Your task to perform on an android device: empty trash in google photos Image 0: 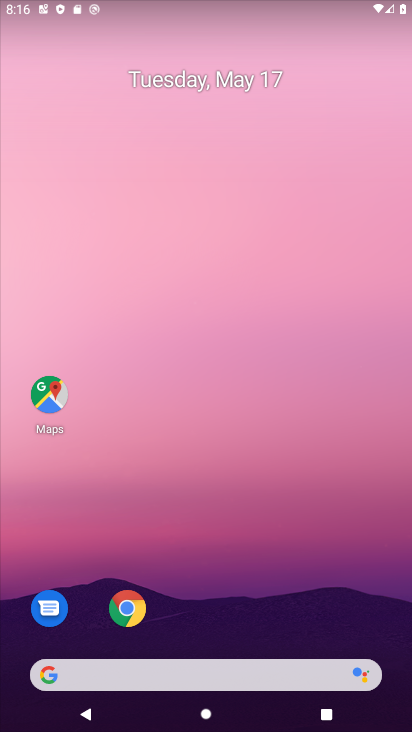
Step 0: drag from (371, 600) to (364, 151)
Your task to perform on an android device: empty trash in google photos Image 1: 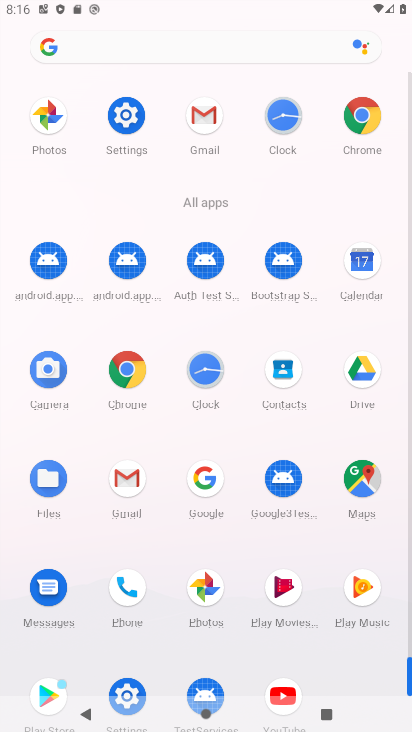
Step 1: click (208, 591)
Your task to perform on an android device: empty trash in google photos Image 2: 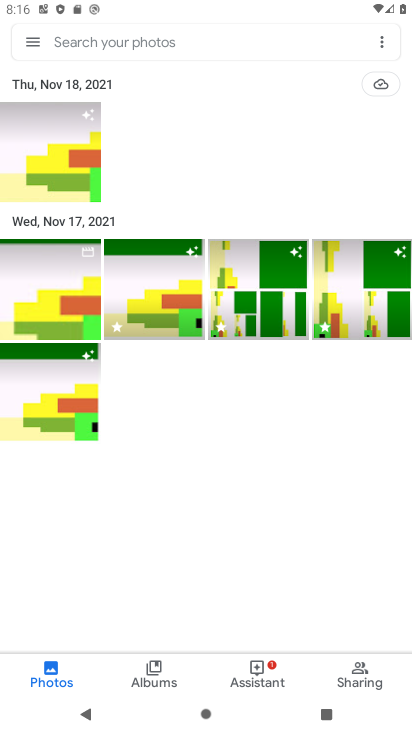
Step 2: click (28, 43)
Your task to perform on an android device: empty trash in google photos Image 3: 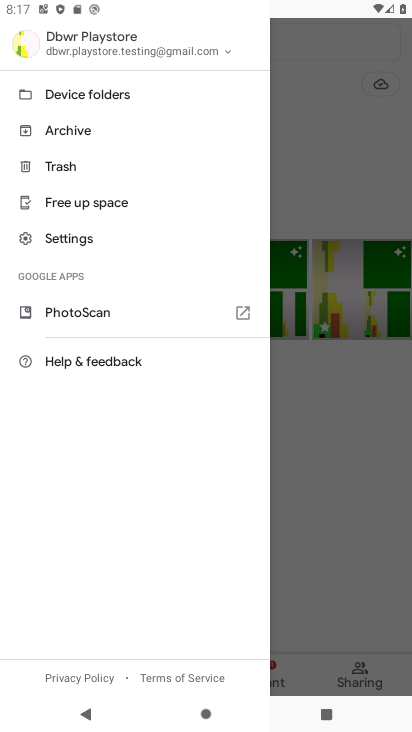
Step 3: click (82, 166)
Your task to perform on an android device: empty trash in google photos Image 4: 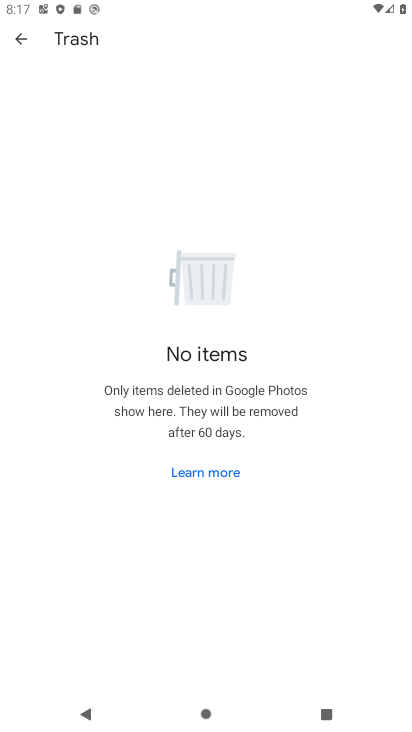
Step 4: task complete